Your task to perform on an android device: Is it going to rain this weekend? Image 0: 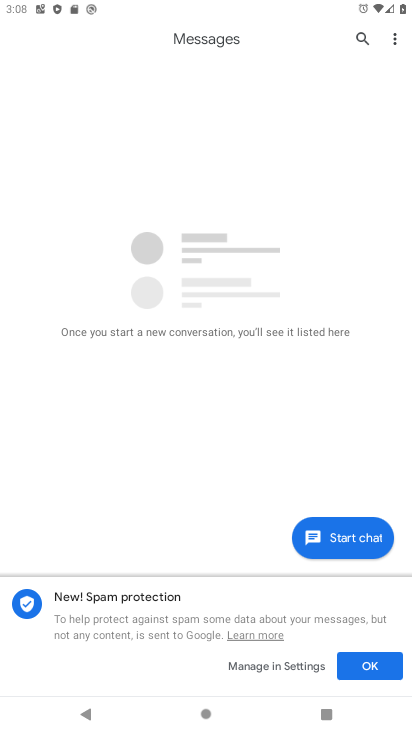
Step 0: press home button
Your task to perform on an android device: Is it going to rain this weekend? Image 1: 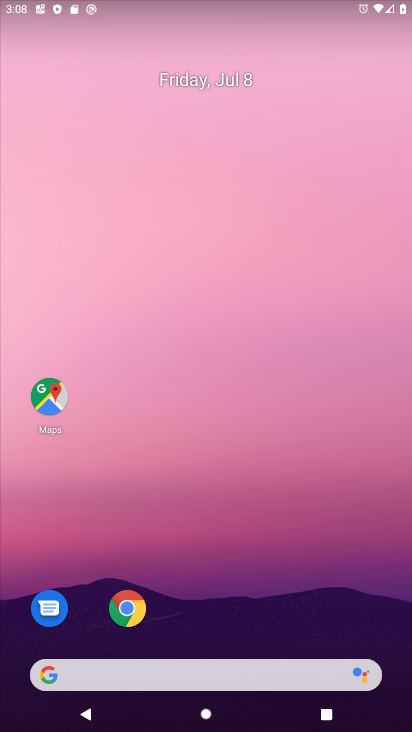
Step 1: drag from (218, 578) to (244, 25)
Your task to perform on an android device: Is it going to rain this weekend? Image 2: 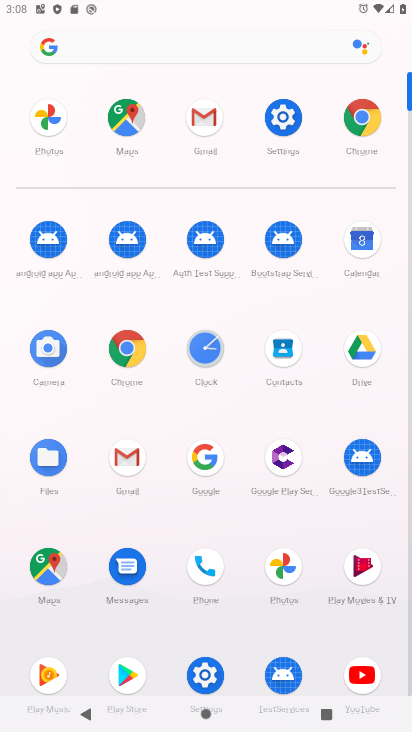
Step 2: click (204, 461)
Your task to perform on an android device: Is it going to rain this weekend? Image 3: 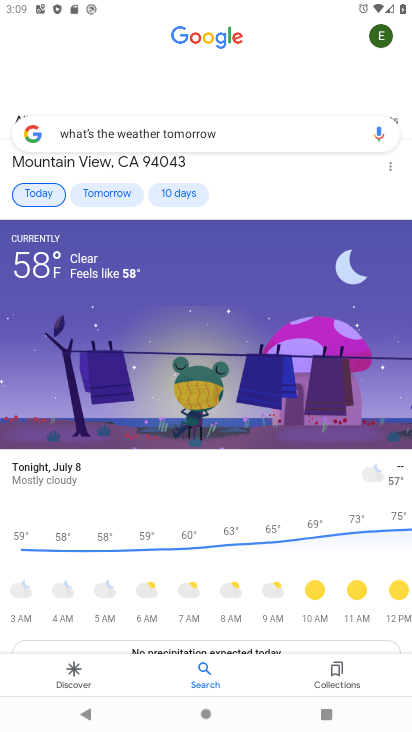
Step 3: click (187, 186)
Your task to perform on an android device: Is it going to rain this weekend? Image 4: 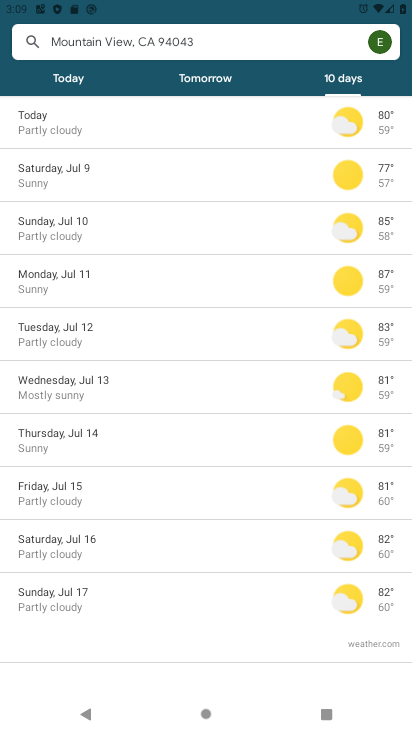
Step 4: task complete